Your task to perform on an android device: uninstall "Roku - Official Remote Control" Image 0: 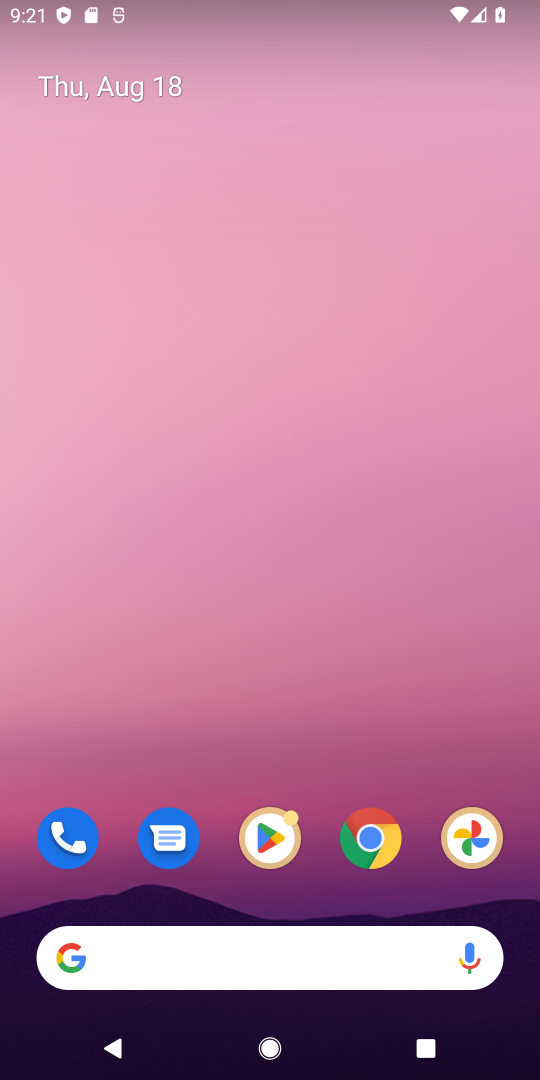
Step 0: click (284, 832)
Your task to perform on an android device: uninstall "Roku - Official Remote Control" Image 1: 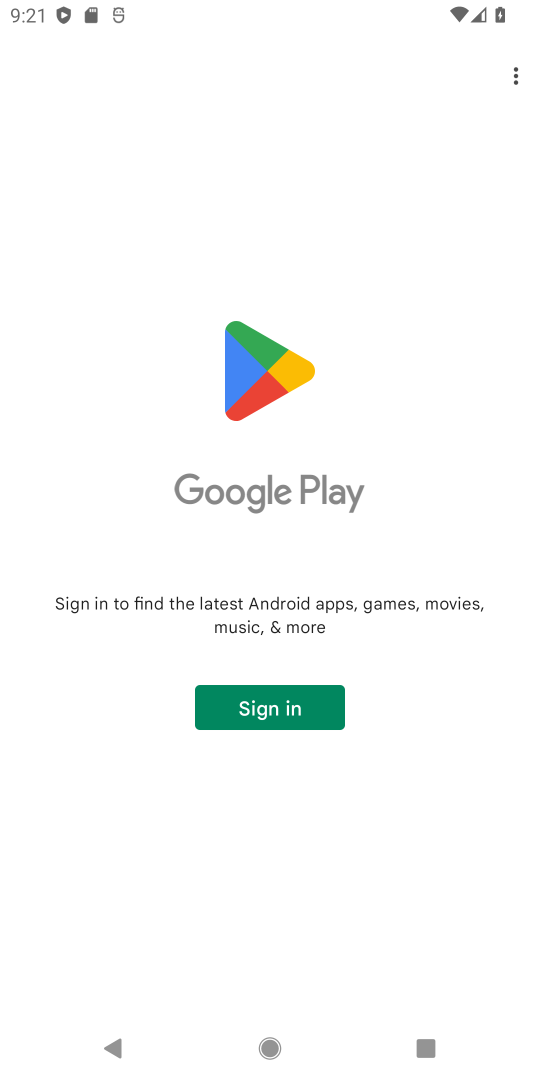
Step 1: click (309, 682)
Your task to perform on an android device: uninstall "Roku - Official Remote Control" Image 2: 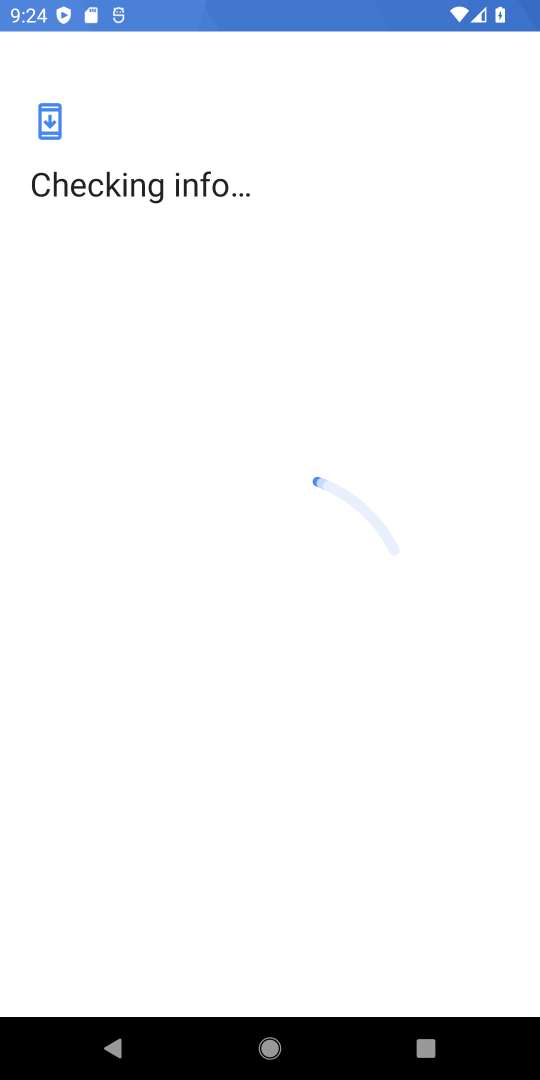
Step 2: press home button
Your task to perform on an android device: uninstall "Roku - Official Remote Control" Image 3: 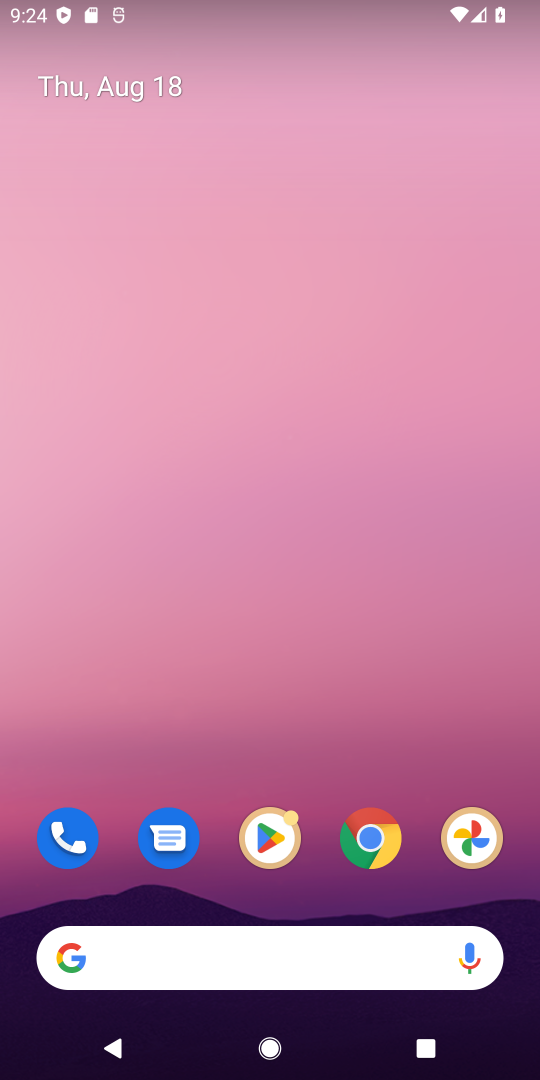
Step 3: click (267, 838)
Your task to perform on an android device: uninstall "Roku - Official Remote Control" Image 4: 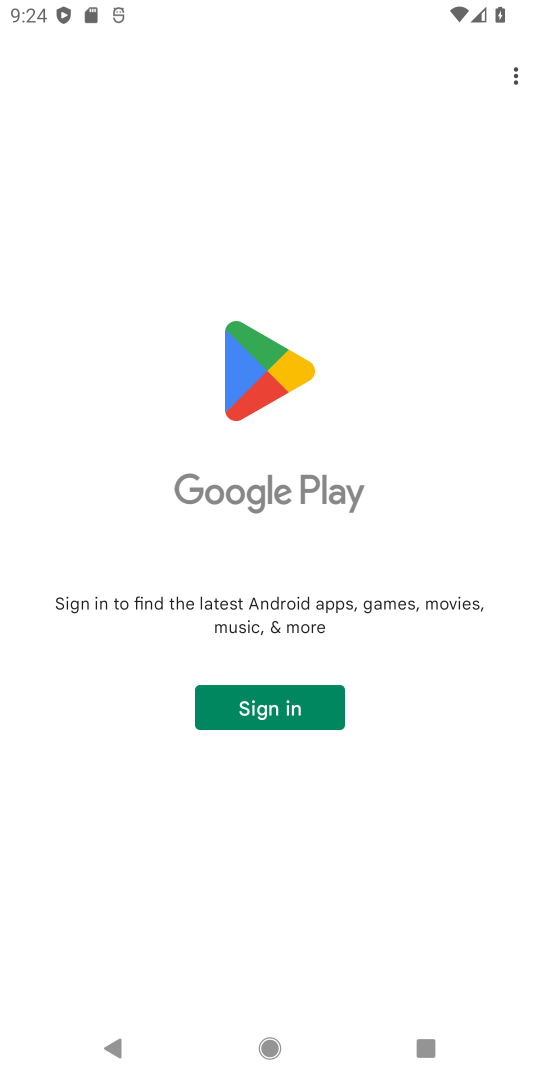
Step 4: click (267, 719)
Your task to perform on an android device: uninstall "Roku - Official Remote Control" Image 5: 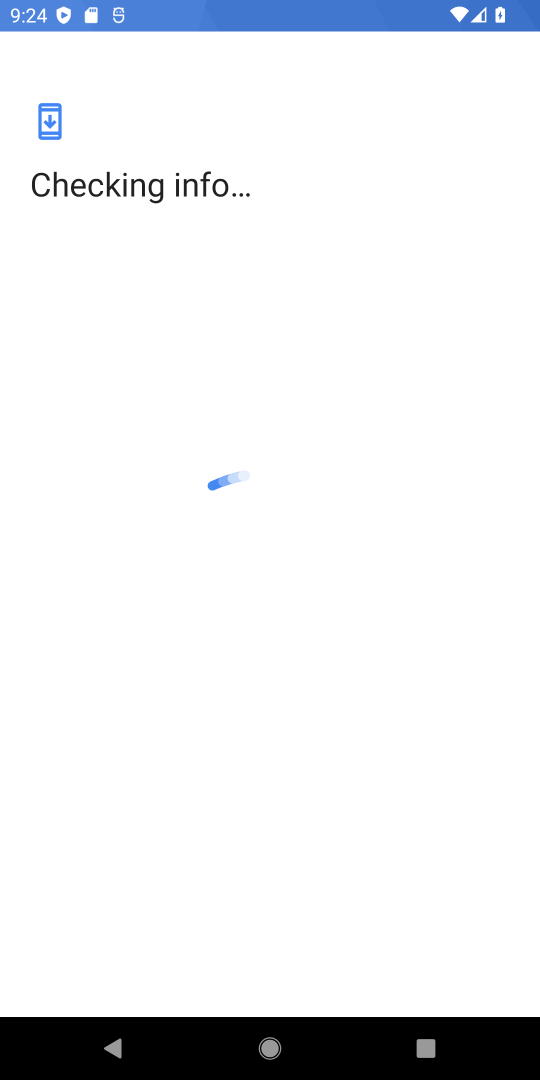
Step 5: task complete